Your task to perform on an android device: open sync settings in chrome Image 0: 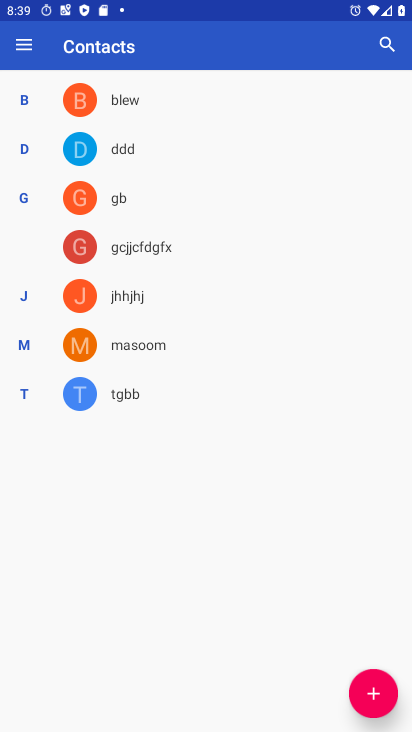
Step 0: press home button
Your task to perform on an android device: open sync settings in chrome Image 1: 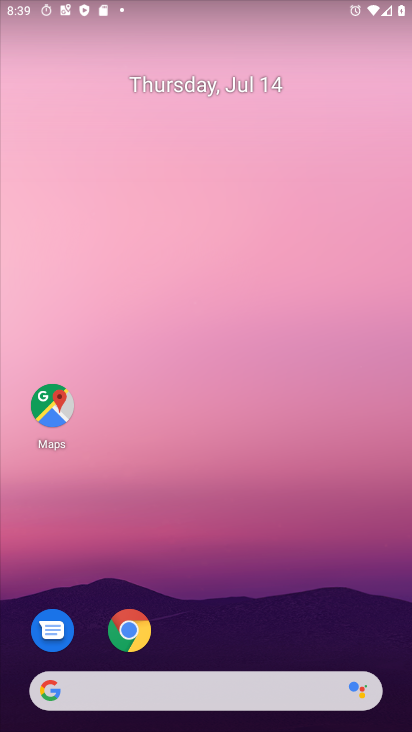
Step 1: click (131, 631)
Your task to perform on an android device: open sync settings in chrome Image 2: 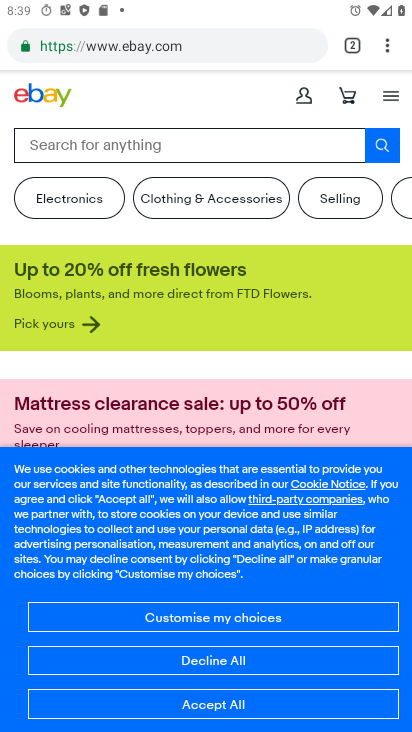
Step 2: click (387, 47)
Your task to perform on an android device: open sync settings in chrome Image 3: 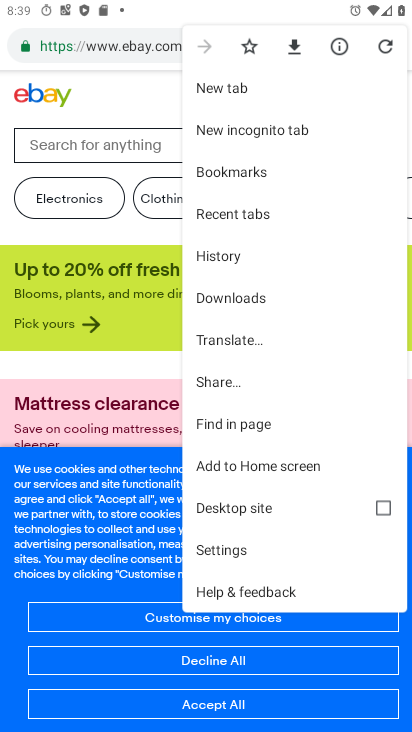
Step 3: click (224, 547)
Your task to perform on an android device: open sync settings in chrome Image 4: 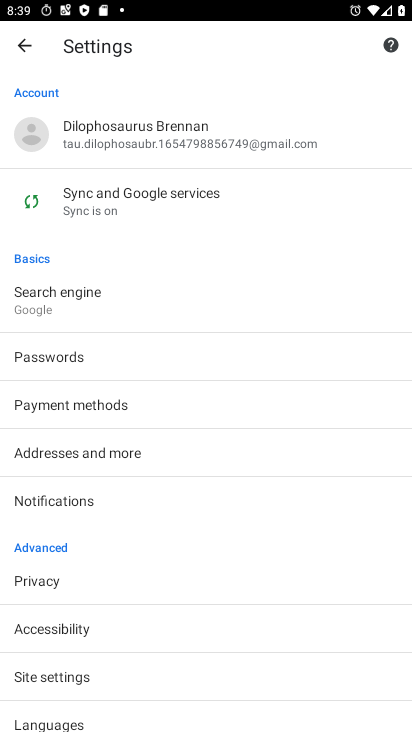
Step 4: click (50, 672)
Your task to perform on an android device: open sync settings in chrome Image 5: 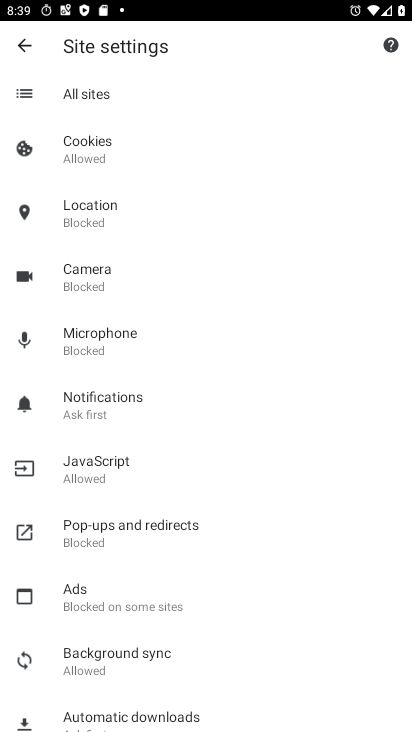
Step 5: click (113, 653)
Your task to perform on an android device: open sync settings in chrome Image 6: 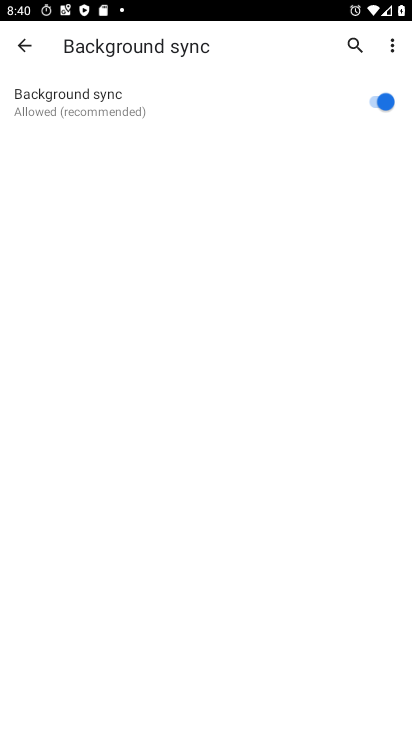
Step 6: task complete